Your task to perform on an android device: Open calendar and show me the second week of next month Image 0: 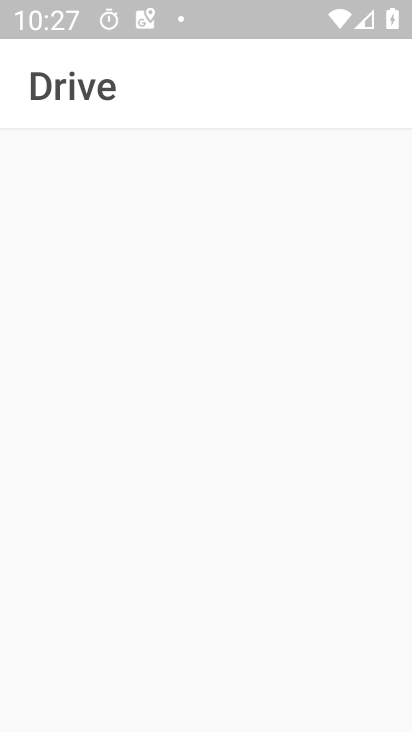
Step 0: press home button
Your task to perform on an android device: Open calendar and show me the second week of next month Image 1: 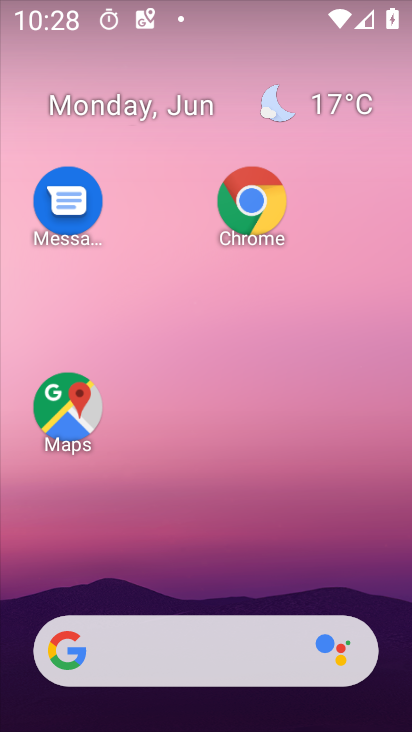
Step 1: drag from (210, 619) to (288, 11)
Your task to perform on an android device: Open calendar and show me the second week of next month Image 2: 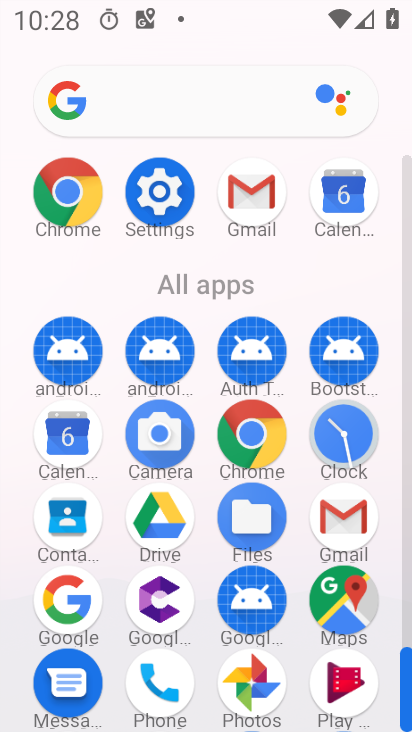
Step 2: click (80, 422)
Your task to perform on an android device: Open calendar and show me the second week of next month Image 3: 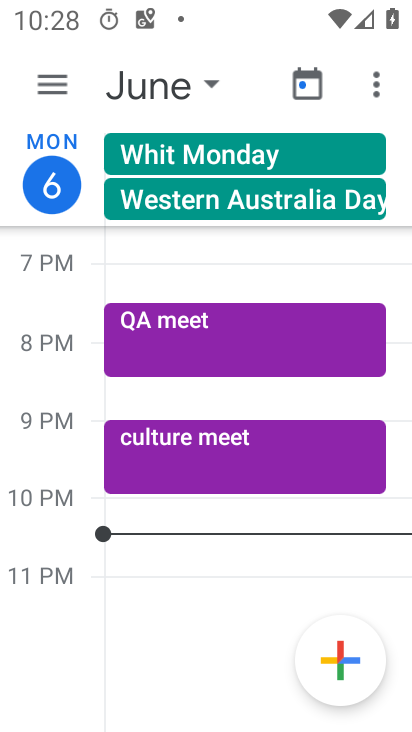
Step 3: click (31, 76)
Your task to perform on an android device: Open calendar and show me the second week of next month Image 4: 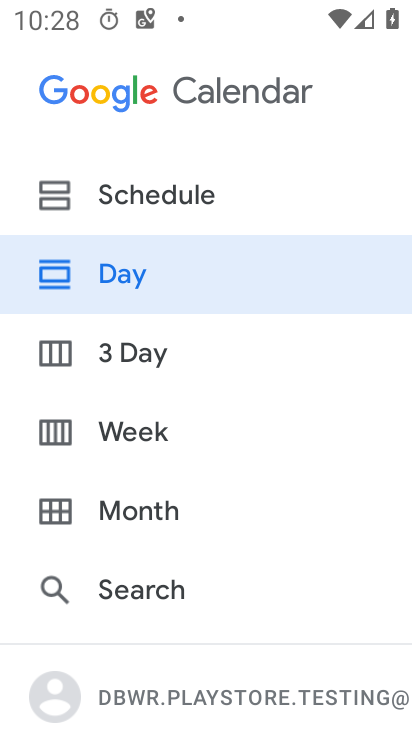
Step 4: click (159, 440)
Your task to perform on an android device: Open calendar and show me the second week of next month Image 5: 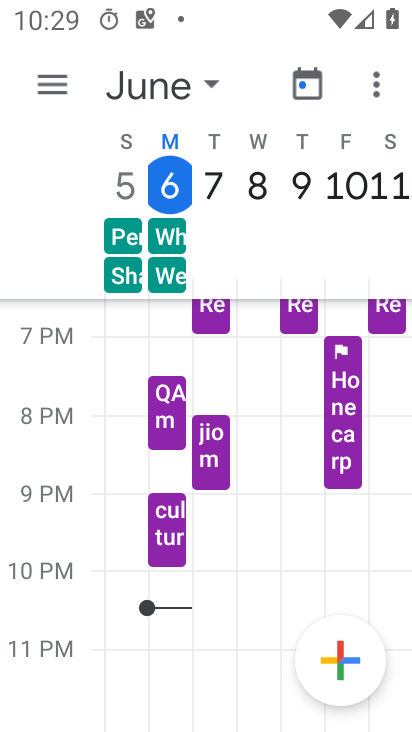
Step 5: task complete